Your task to perform on an android device: star an email in the gmail app Image 0: 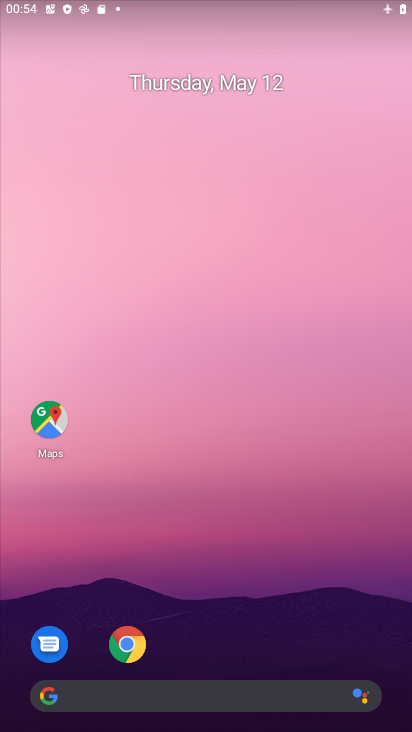
Step 0: drag from (268, 636) to (287, 169)
Your task to perform on an android device: star an email in the gmail app Image 1: 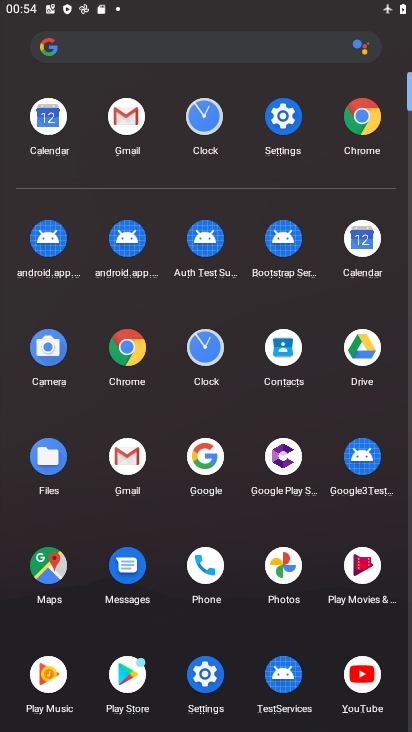
Step 1: click (134, 450)
Your task to perform on an android device: star an email in the gmail app Image 2: 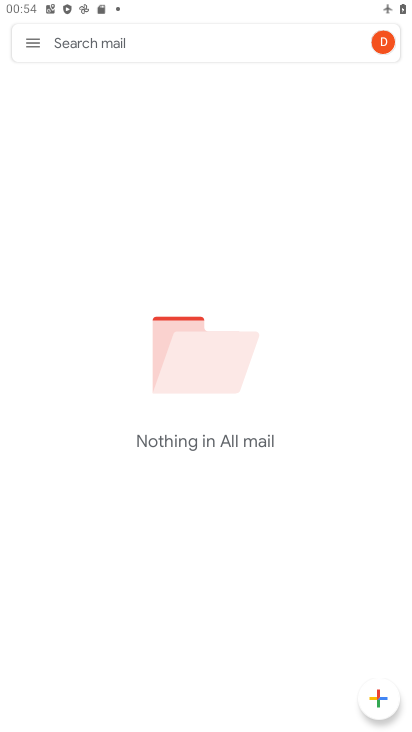
Step 2: click (34, 53)
Your task to perform on an android device: star an email in the gmail app Image 3: 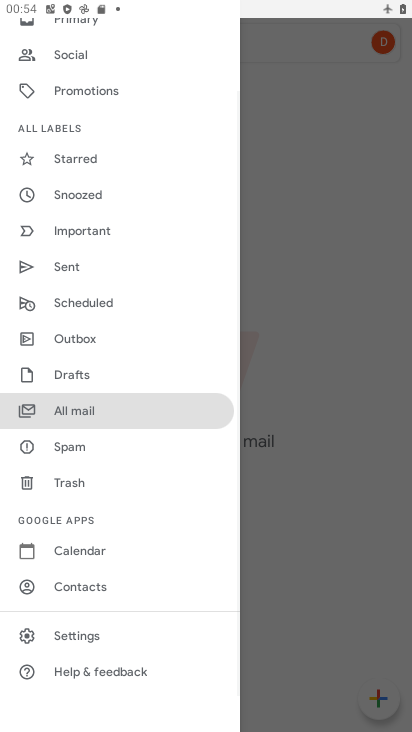
Step 3: click (111, 407)
Your task to perform on an android device: star an email in the gmail app Image 4: 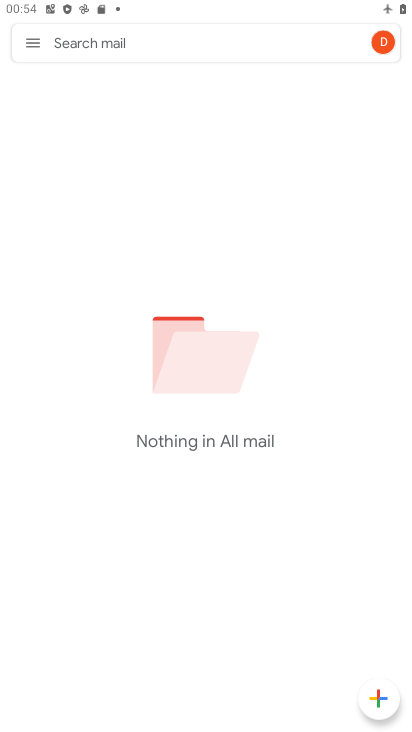
Step 4: task complete